Your task to perform on an android device: Go to Amazon Image 0: 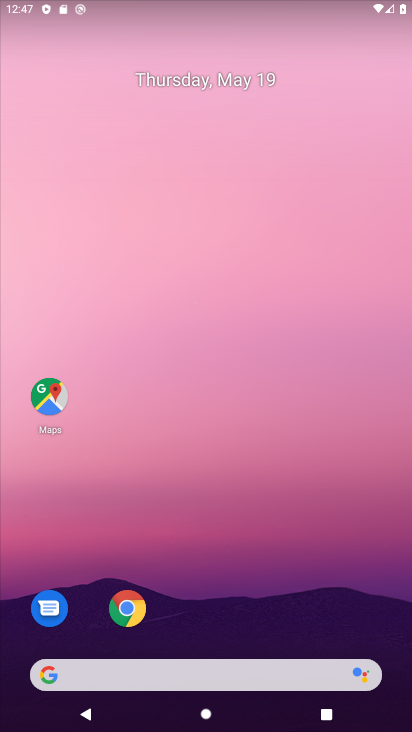
Step 0: click (124, 619)
Your task to perform on an android device: Go to Amazon Image 1: 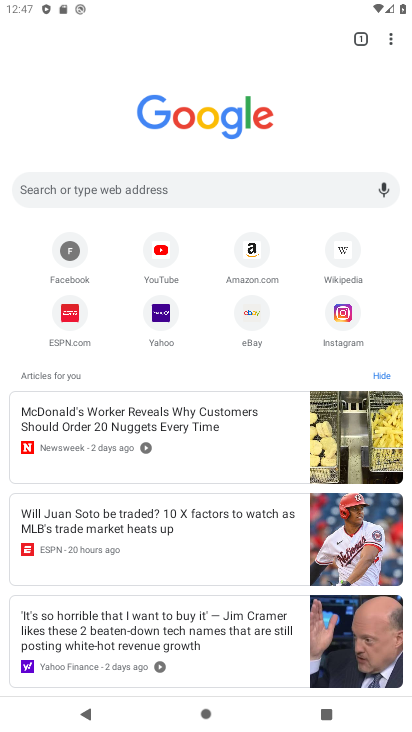
Step 1: click (258, 252)
Your task to perform on an android device: Go to Amazon Image 2: 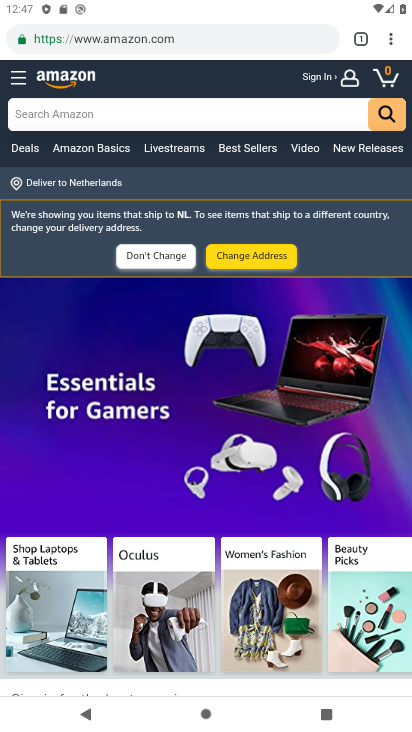
Step 2: task complete